Your task to perform on an android device: check the backup settings in the google photos Image 0: 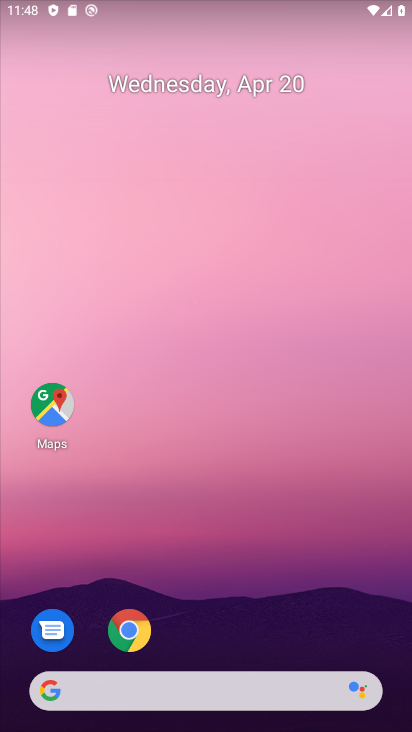
Step 0: drag from (294, 581) to (328, 3)
Your task to perform on an android device: check the backup settings in the google photos Image 1: 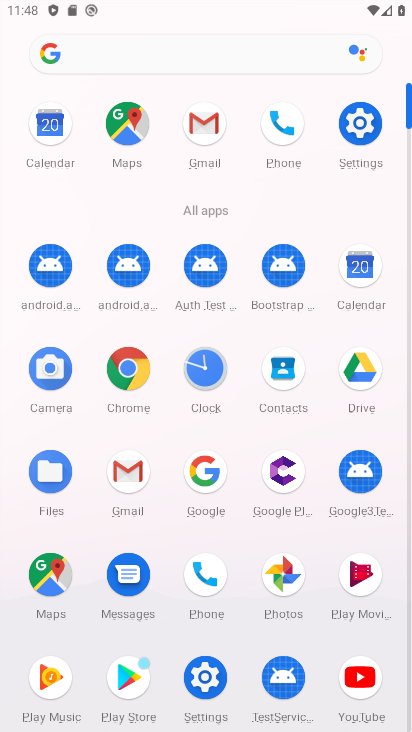
Step 1: click (277, 619)
Your task to perform on an android device: check the backup settings in the google photos Image 2: 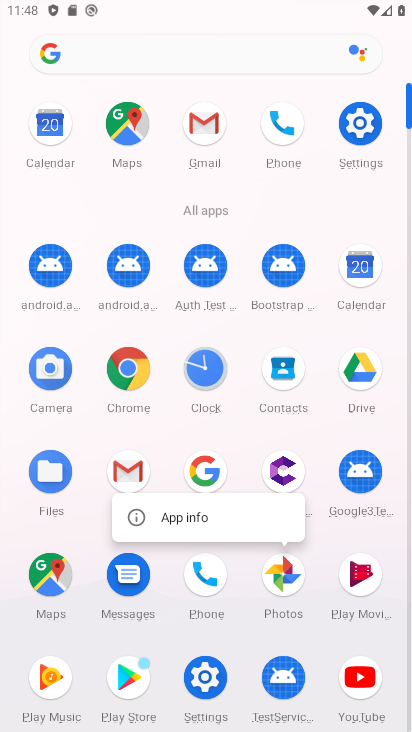
Step 2: click (290, 582)
Your task to perform on an android device: check the backup settings in the google photos Image 3: 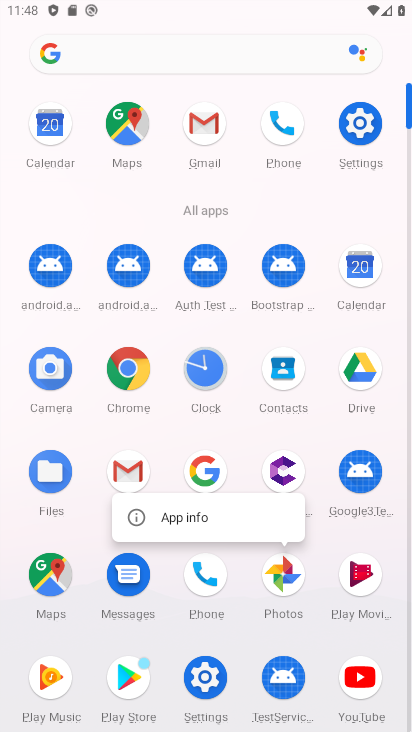
Step 3: click (290, 582)
Your task to perform on an android device: check the backup settings in the google photos Image 4: 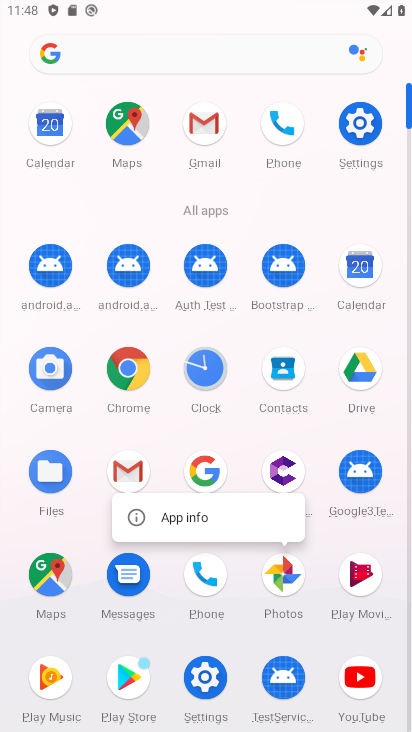
Step 4: click (290, 582)
Your task to perform on an android device: check the backup settings in the google photos Image 5: 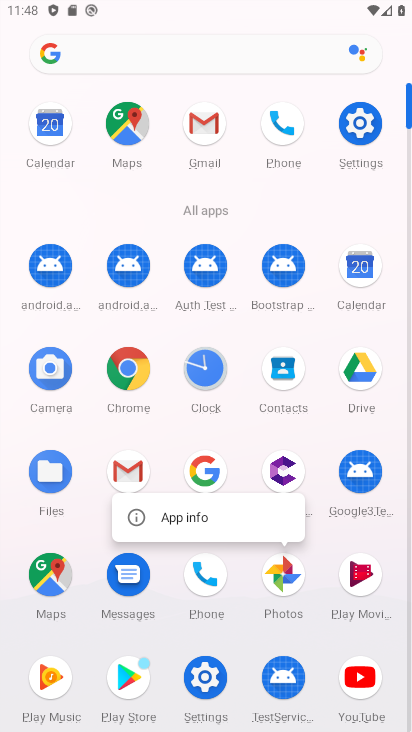
Step 5: click (290, 582)
Your task to perform on an android device: check the backup settings in the google photos Image 6: 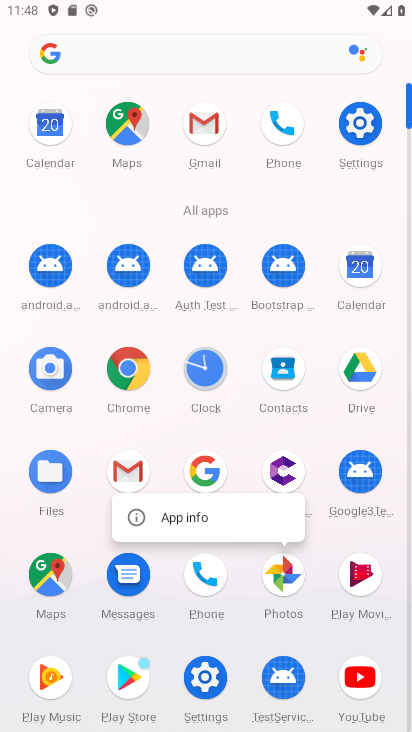
Step 6: click (290, 582)
Your task to perform on an android device: check the backup settings in the google photos Image 7: 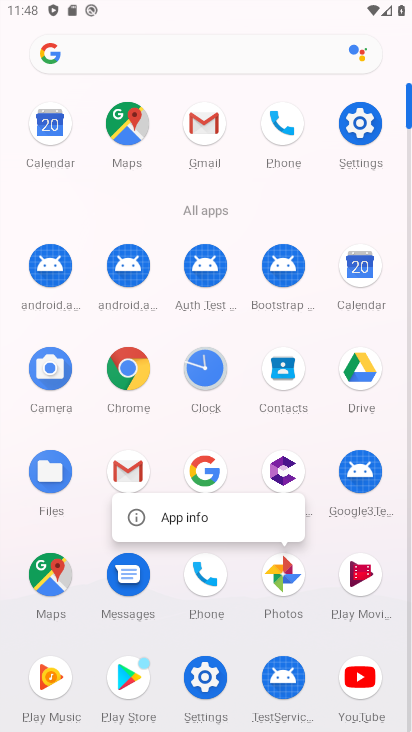
Step 7: click (290, 582)
Your task to perform on an android device: check the backup settings in the google photos Image 8: 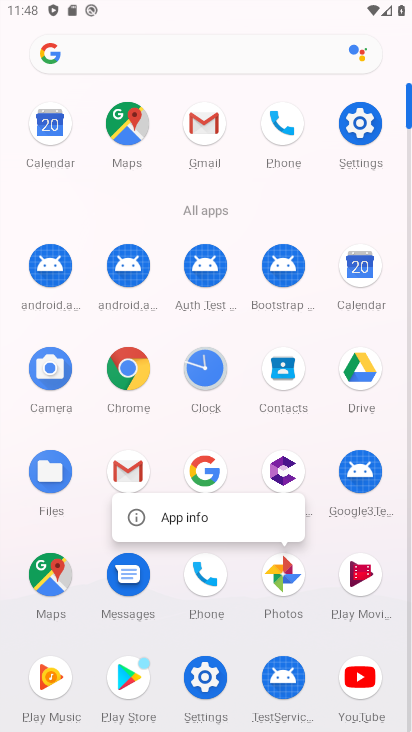
Step 8: click (290, 582)
Your task to perform on an android device: check the backup settings in the google photos Image 9: 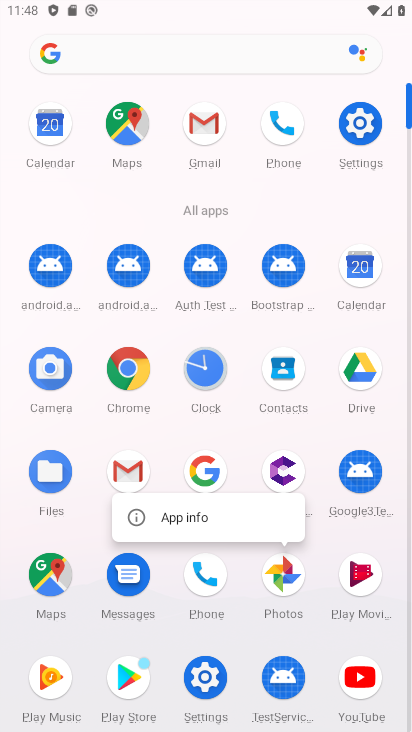
Step 9: click (294, 579)
Your task to perform on an android device: check the backup settings in the google photos Image 10: 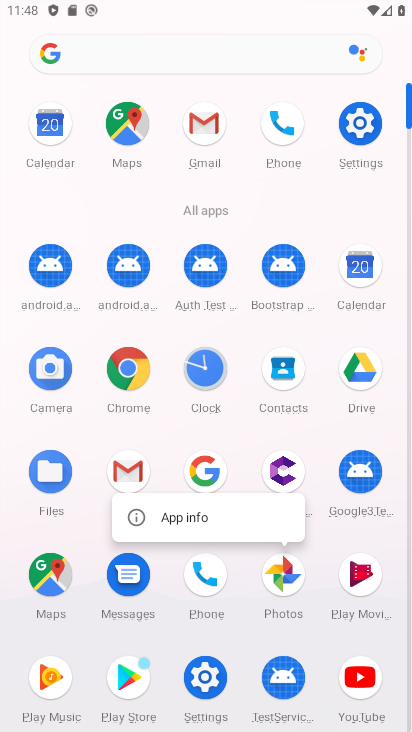
Step 10: click (294, 579)
Your task to perform on an android device: check the backup settings in the google photos Image 11: 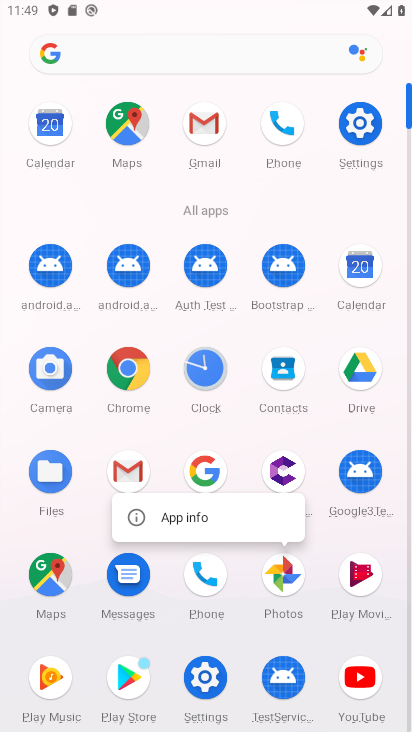
Step 11: click (294, 579)
Your task to perform on an android device: check the backup settings in the google photos Image 12: 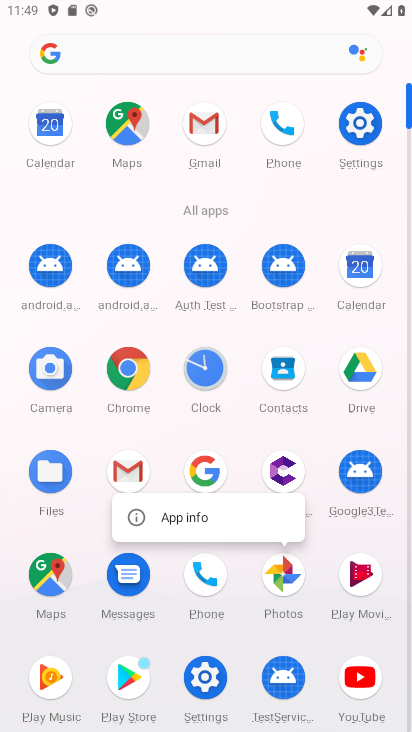
Step 12: click (294, 579)
Your task to perform on an android device: check the backup settings in the google photos Image 13: 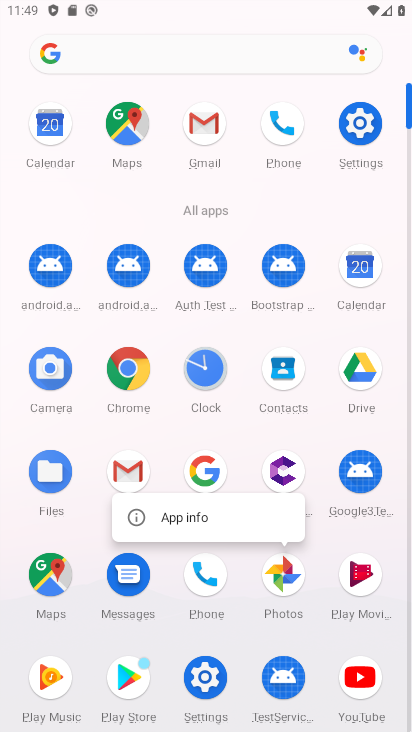
Step 13: click (293, 588)
Your task to perform on an android device: check the backup settings in the google photos Image 14: 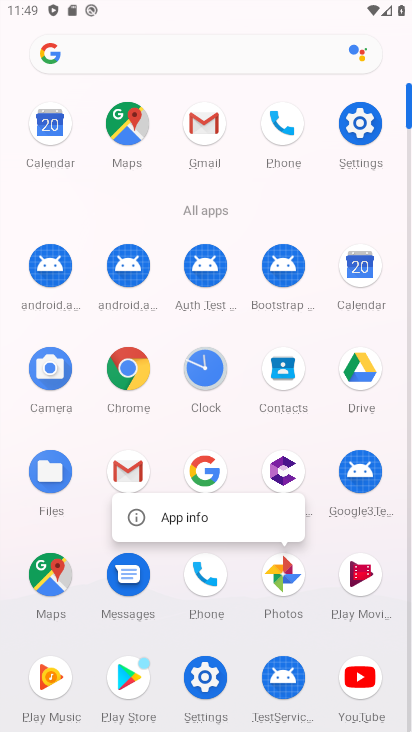
Step 14: click (289, 586)
Your task to perform on an android device: check the backup settings in the google photos Image 15: 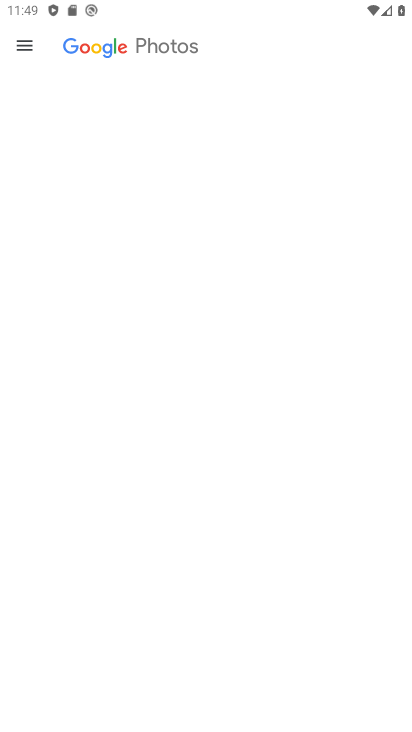
Step 15: click (289, 586)
Your task to perform on an android device: check the backup settings in the google photos Image 16: 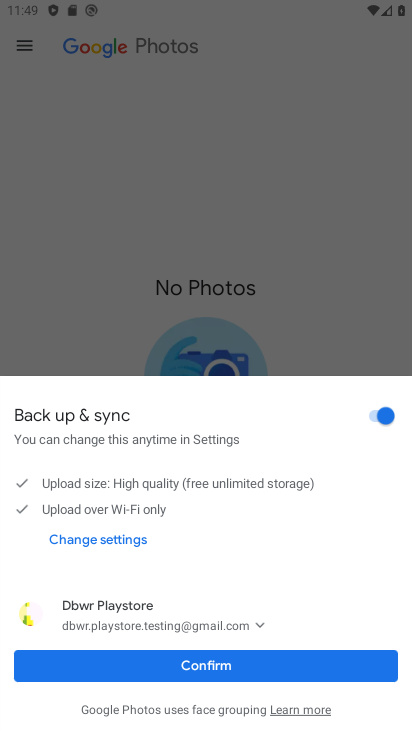
Step 16: click (214, 667)
Your task to perform on an android device: check the backup settings in the google photos Image 17: 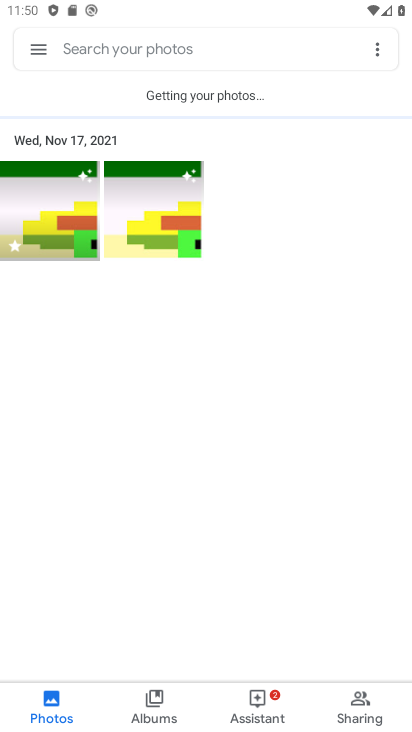
Step 17: click (40, 59)
Your task to perform on an android device: check the backup settings in the google photos Image 18: 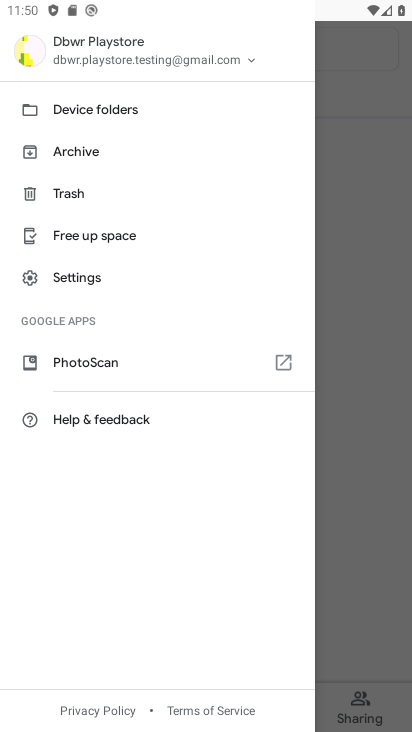
Step 18: click (81, 274)
Your task to perform on an android device: check the backup settings in the google photos Image 19: 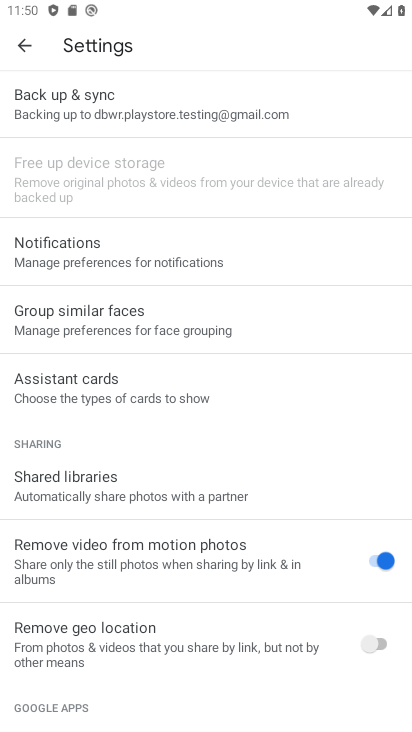
Step 19: click (155, 100)
Your task to perform on an android device: check the backup settings in the google photos Image 20: 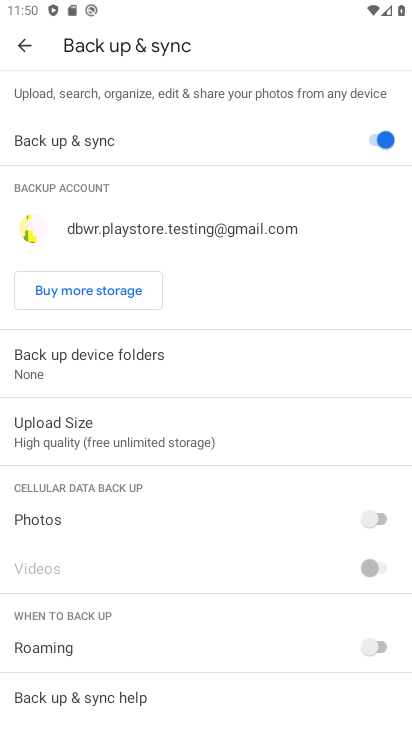
Step 20: task complete